Your task to perform on an android device: star an email in the gmail app Image 0: 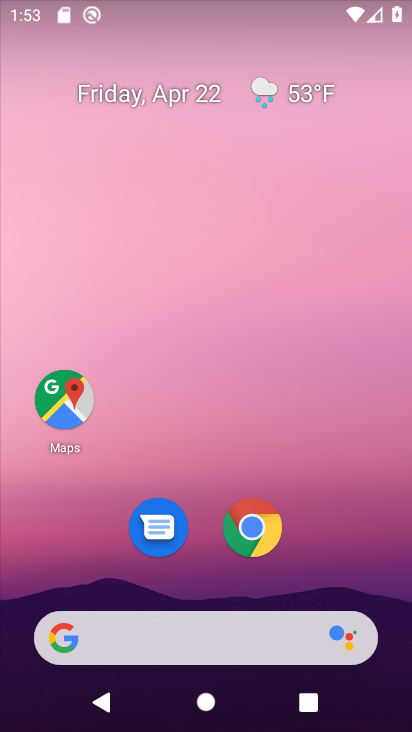
Step 0: drag from (342, 574) to (280, 60)
Your task to perform on an android device: star an email in the gmail app Image 1: 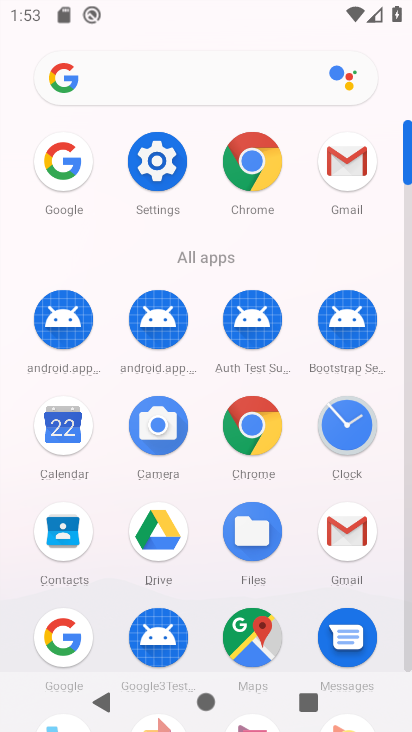
Step 1: click (341, 155)
Your task to perform on an android device: star an email in the gmail app Image 2: 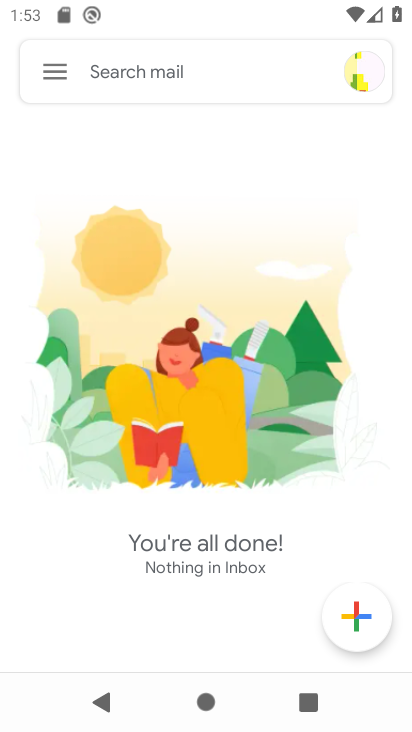
Step 2: click (45, 66)
Your task to perform on an android device: star an email in the gmail app Image 3: 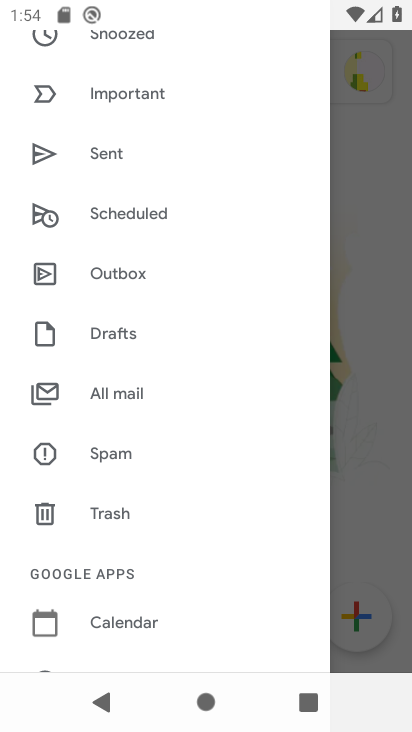
Step 3: click (124, 391)
Your task to perform on an android device: star an email in the gmail app Image 4: 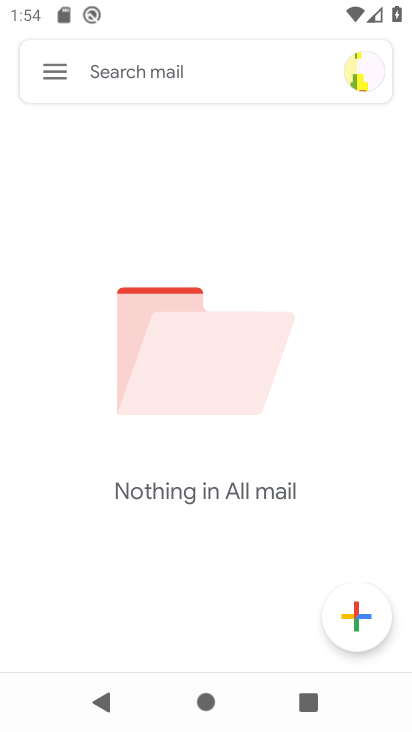
Step 4: task complete